Your task to perform on an android device: Open the calendar app, open the side menu, and click the "Day" option Image 0: 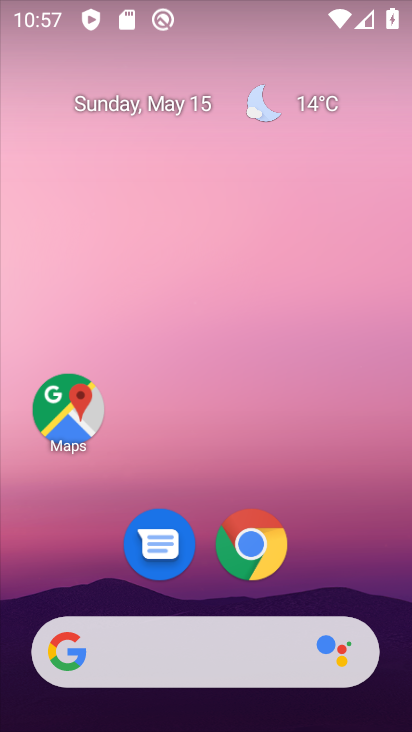
Step 0: drag from (80, 601) to (214, 37)
Your task to perform on an android device: Open the calendar app, open the side menu, and click the "Day" option Image 1: 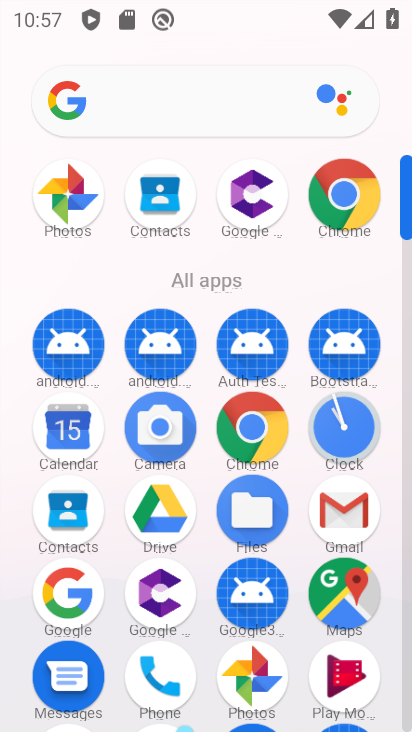
Step 1: click (66, 438)
Your task to perform on an android device: Open the calendar app, open the side menu, and click the "Day" option Image 2: 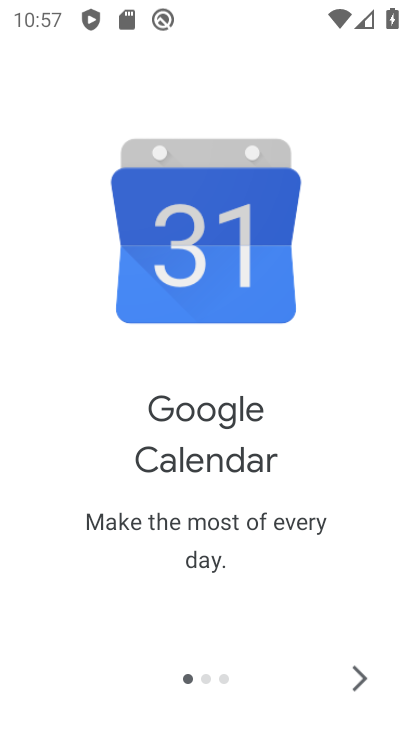
Step 2: click (391, 667)
Your task to perform on an android device: Open the calendar app, open the side menu, and click the "Day" option Image 3: 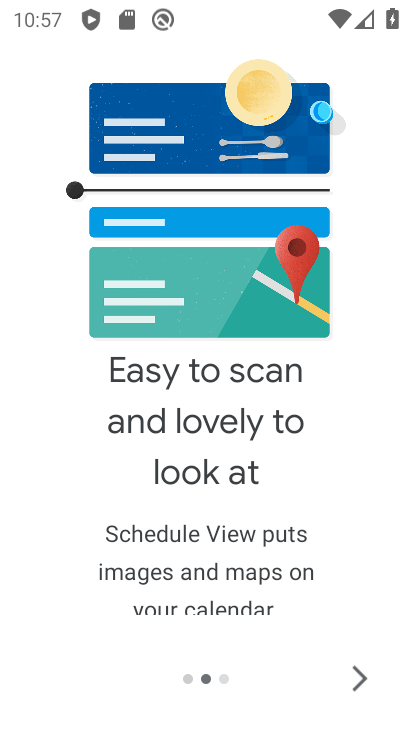
Step 3: click (381, 668)
Your task to perform on an android device: Open the calendar app, open the side menu, and click the "Day" option Image 4: 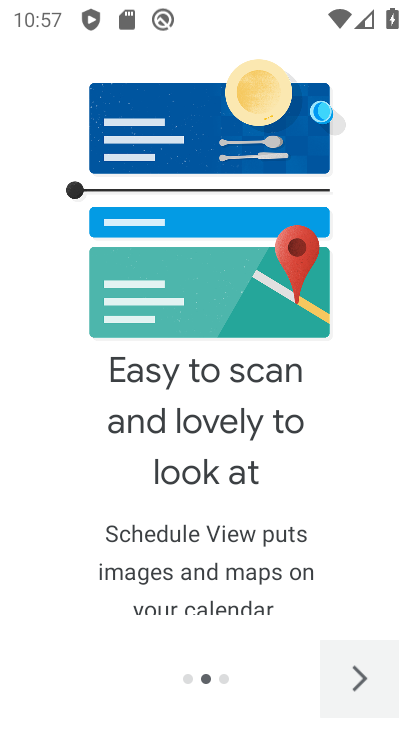
Step 4: click (381, 669)
Your task to perform on an android device: Open the calendar app, open the side menu, and click the "Day" option Image 5: 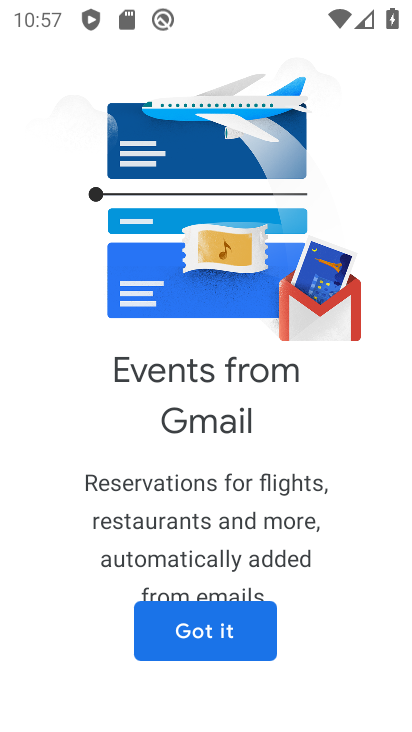
Step 5: click (381, 667)
Your task to perform on an android device: Open the calendar app, open the side menu, and click the "Day" option Image 6: 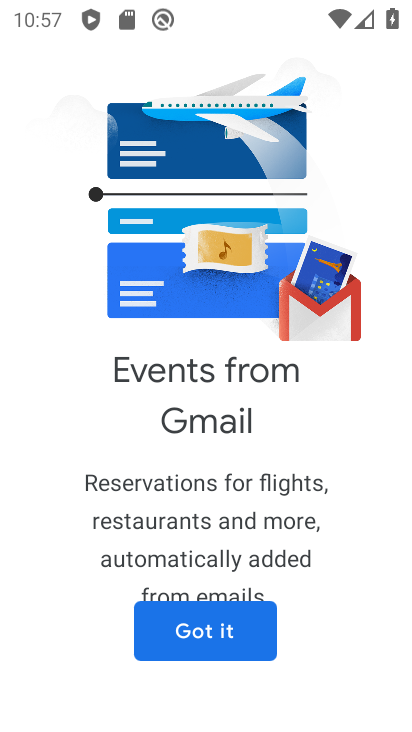
Step 6: click (259, 633)
Your task to perform on an android device: Open the calendar app, open the side menu, and click the "Day" option Image 7: 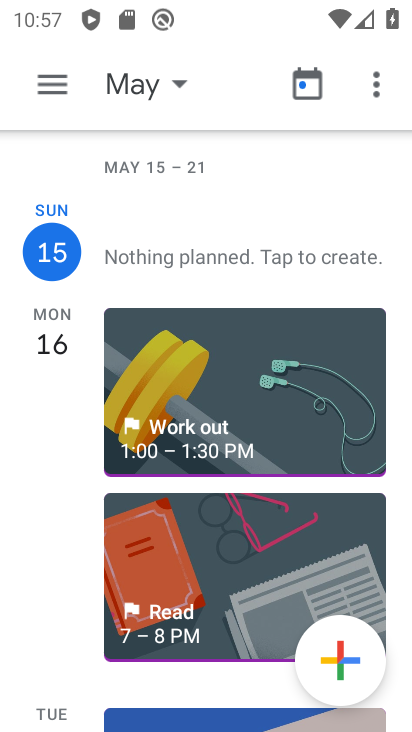
Step 7: click (77, 84)
Your task to perform on an android device: Open the calendar app, open the side menu, and click the "Day" option Image 8: 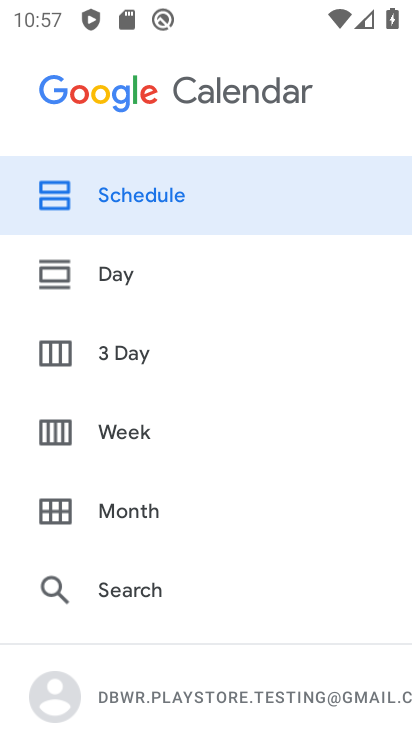
Step 8: click (181, 275)
Your task to perform on an android device: Open the calendar app, open the side menu, and click the "Day" option Image 9: 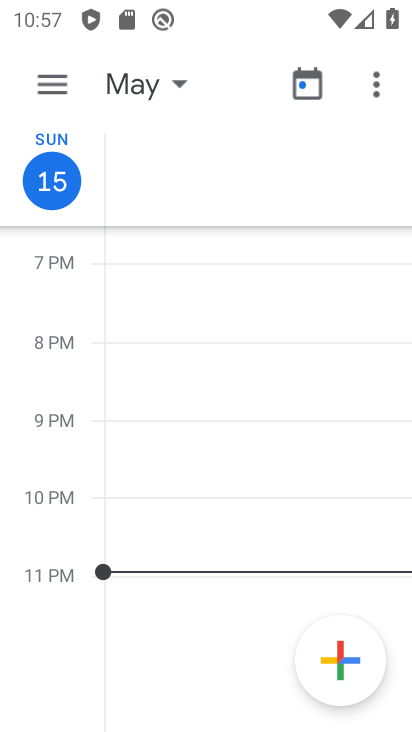
Step 9: task complete